Your task to perform on an android device: Go to notification settings Image 0: 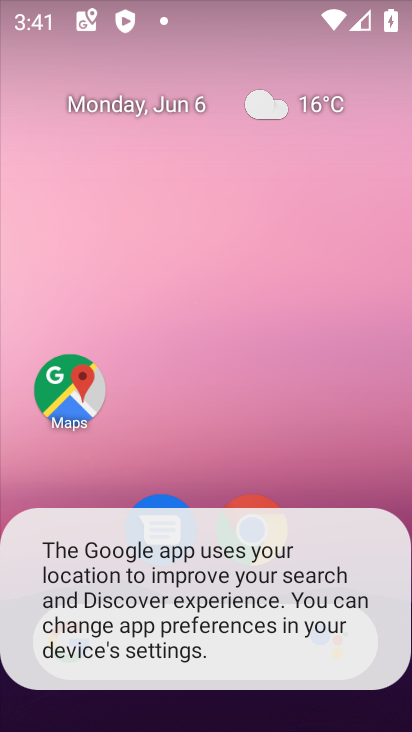
Step 0: drag from (355, 486) to (290, 99)
Your task to perform on an android device: Go to notification settings Image 1: 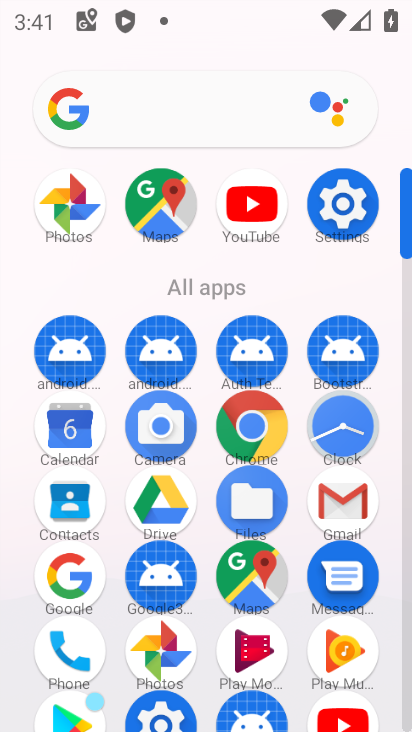
Step 1: click (316, 187)
Your task to perform on an android device: Go to notification settings Image 2: 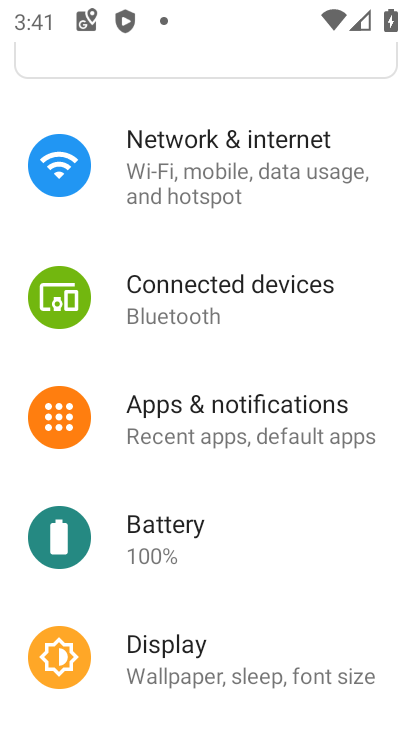
Step 2: click (316, 401)
Your task to perform on an android device: Go to notification settings Image 3: 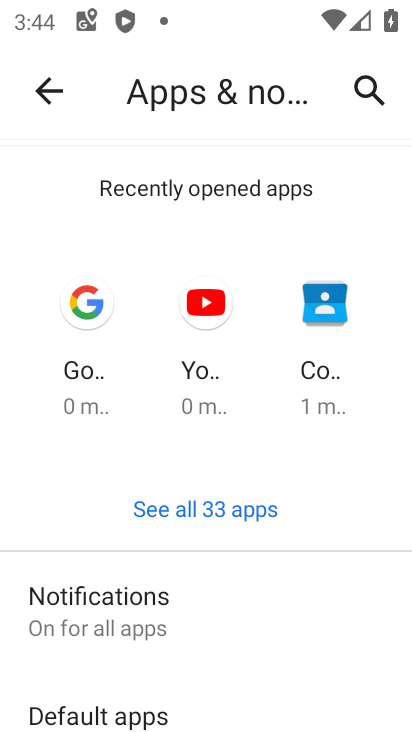
Step 3: task complete